Your task to perform on an android device: Go to battery settings Image 0: 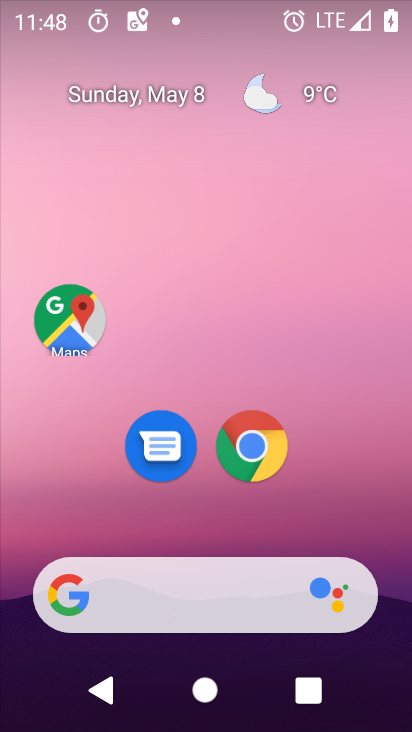
Step 0: drag from (348, 541) to (374, 10)
Your task to perform on an android device: Go to battery settings Image 1: 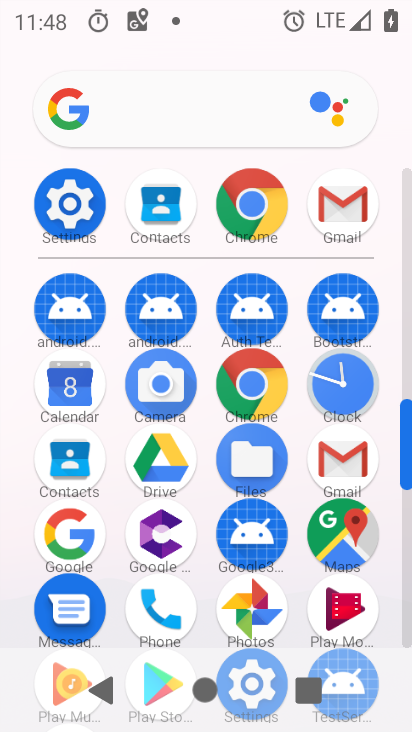
Step 1: click (71, 203)
Your task to perform on an android device: Go to battery settings Image 2: 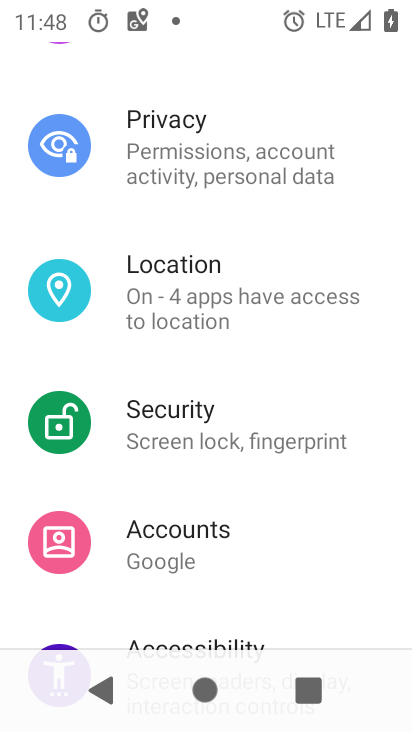
Step 2: drag from (340, 296) to (358, 553)
Your task to perform on an android device: Go to battery settings Image 3: 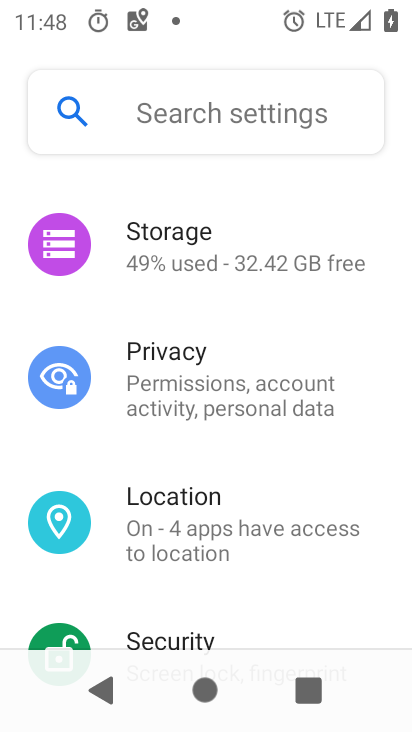
Step 3: drag from (329, 287) to (334, 540)
Your task to perform on an android device: Go to battery settings Image 4: 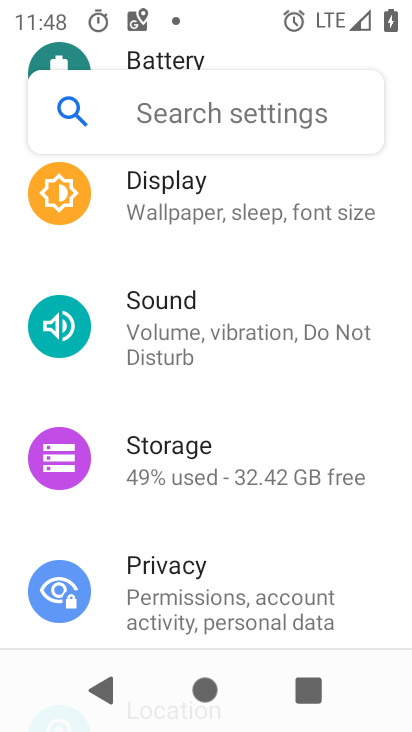
Step 4: drag from (241, 374) to (255, 508)
Your task to perform on an android device: Go to battery settings Image 5: 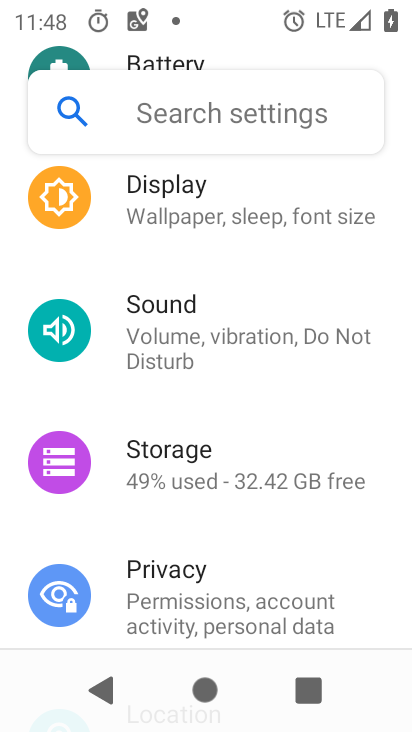
Step 5: drag from (292, 248) to (334, 519)
Your task to perform on an android device: Go to battery settings Image 6: 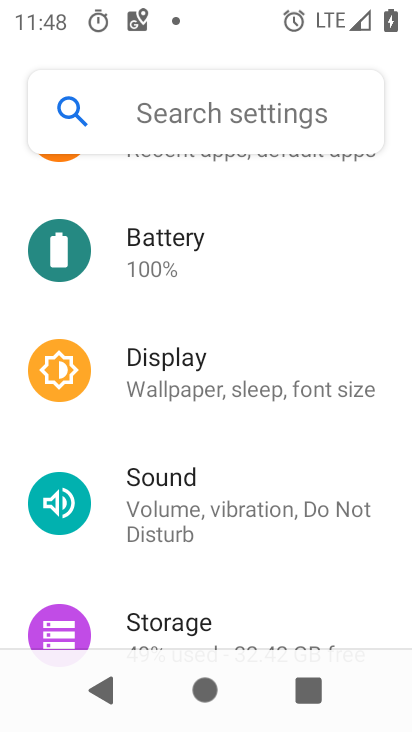
Step 6: click (171, 267)
Your task to perform on an android device: Go to battery settings Image 7: 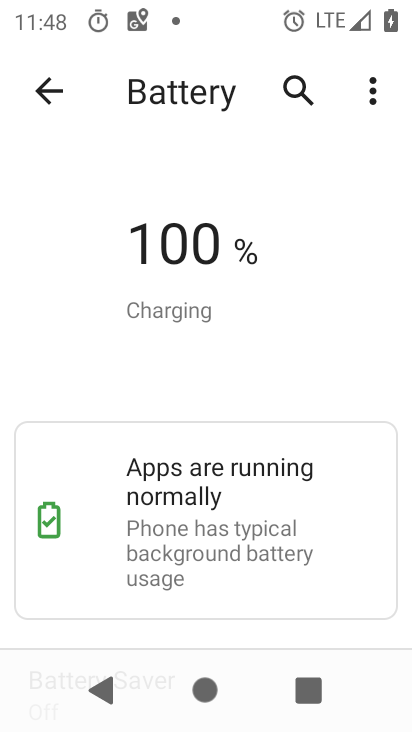
Step 7: task complete